Your task to perform on an android device: Set the phone to "Do not disturb". Image 0: 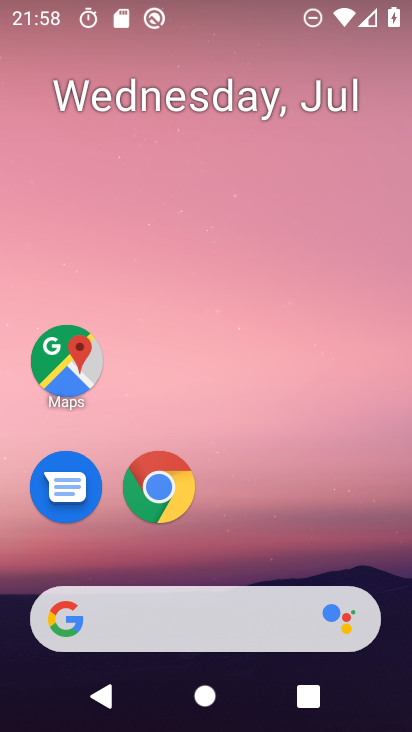
Step 0: drag from (361, 549) to (361, 118)
Your task to perform on an android device: Set the phone to "Do not disturb". Image 1: 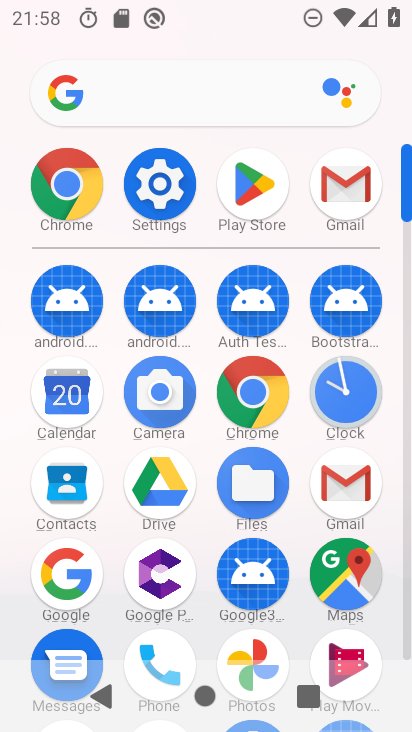
Step 1: click (160, 190)
Your task to perform on an android device: Set the phone to "Do not disturb". Image 2: 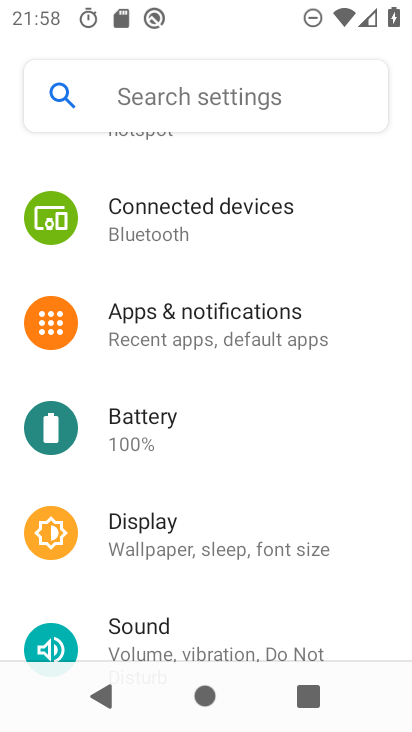
Step 2: drag from (357, 200) to (355, 333)
Your task to perform on an android device: Set the phone to "Do not disturb". Image 3: 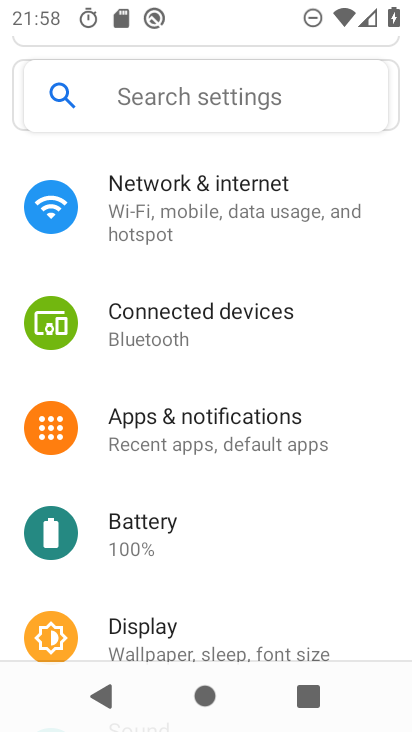
Step 3: drag from (352, 250) to (357, 507)
Your task to perform on an android device: Set the phone to "Do not disturb". Image 4: 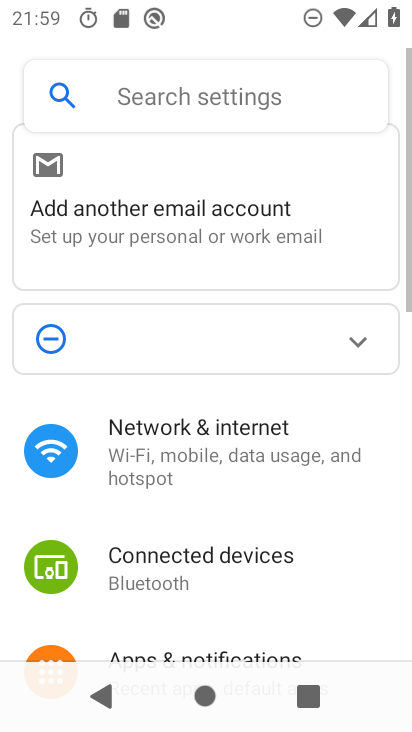
Step 4: drag from (358, 545) to (352, 438)
Your task to perform on an android device: Set the phone to "Do not disturb". Image 5: 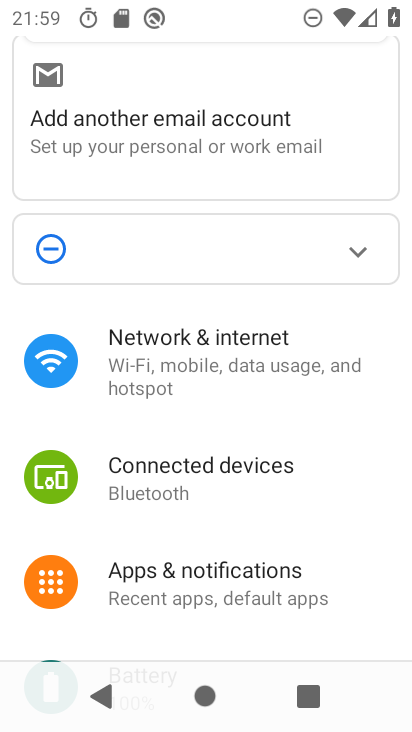
Step 5: drag from (357, 554) to (352, 430)
Your task to perform on an android device: Set the phone to "Do not disturb". Image 6: 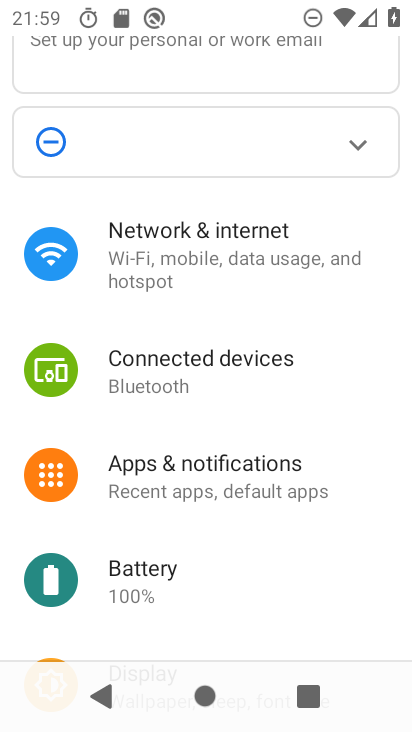
Step 6: drag from (357, 559) to (363, 442)
Your task to perform on an android device: Set the phone to "Do not disturb". Image 7: 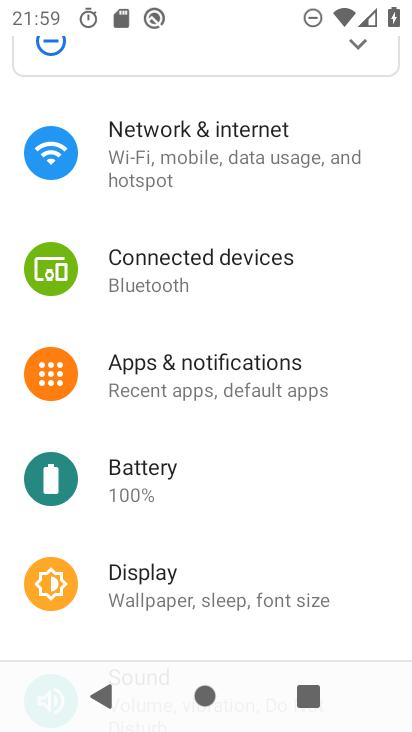
Step 7: drag from (351, 564) to (358, 387)
Your task to perform on an android device: Set the phone to "Do not disturb". Image 8: 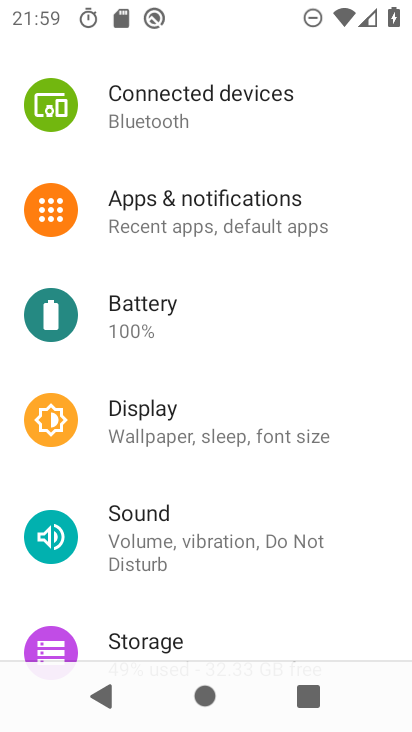
Step 8: click (337, 532)
Your task to perform on an android device: Set the phone to "Do not disturb". Image 9: 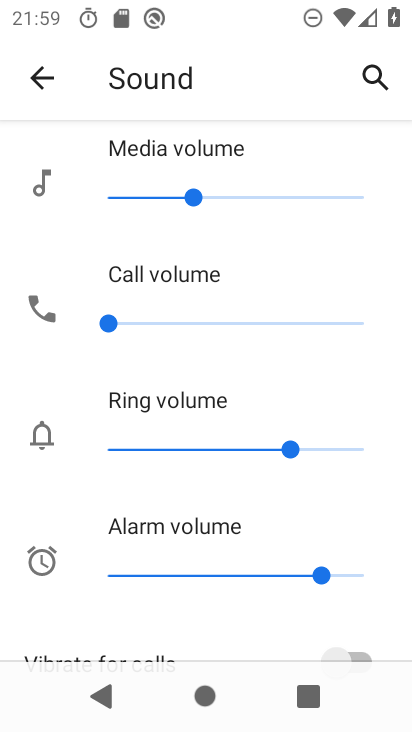
Step 9: task complete